Your task to perform on an android device: turn on priority inbox in the gmail app Image 0: 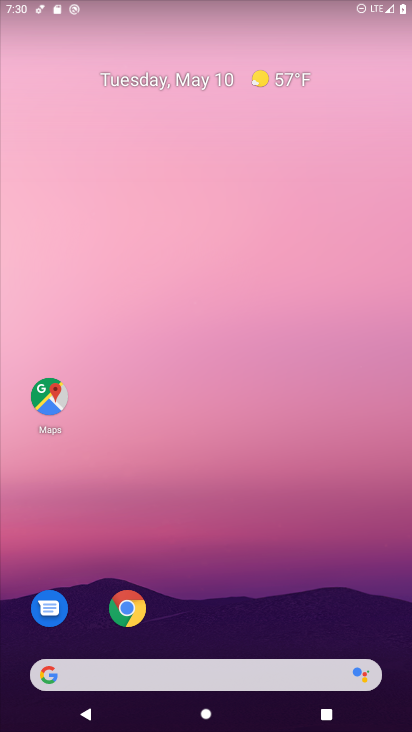
Step 0: drag from (318, 611) to (184, 93)
Your task to perform on an android device: turn on priority inbox in the gmail app Image 1: 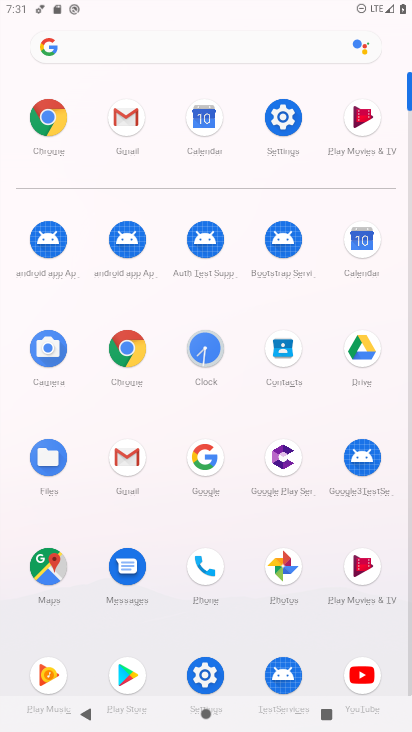
Step 1: click (138, 456)
Your task to perform on an android device: turn on priority inbox in the gmail app Image 2: 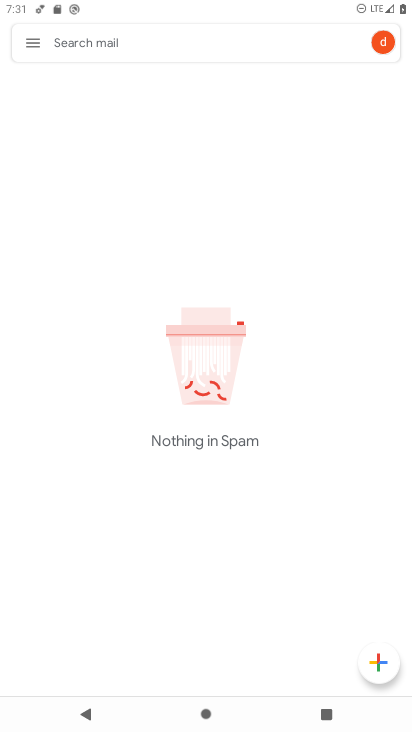
Step 2: click (40, 36)
Your task to perform on an android device: turn on priority inbox in the gmail app Image 3: 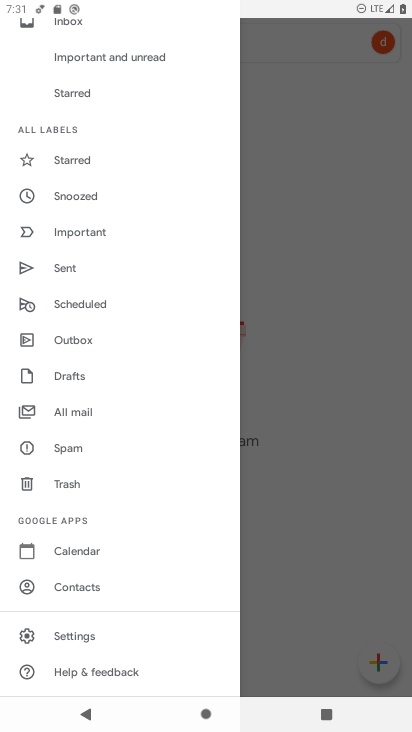
Step 3: click (111, 634)
Your task to perform on an android device: turn on priority inbox in the gmail app Image 4: 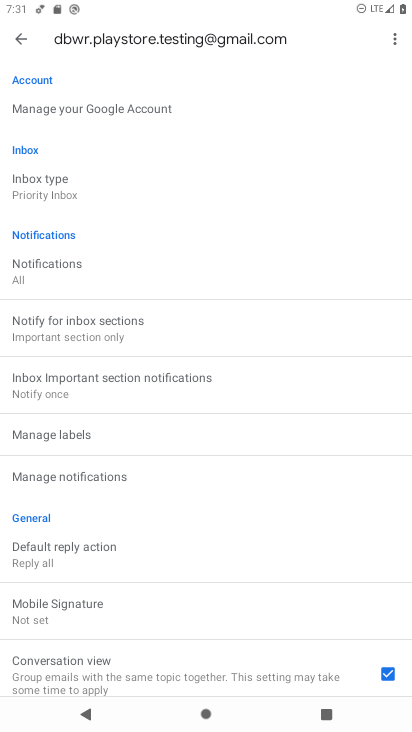
Step 4: click (138, 188)
Your task to perform on an android device: turn on priority inbox in the gmail app Image 5: 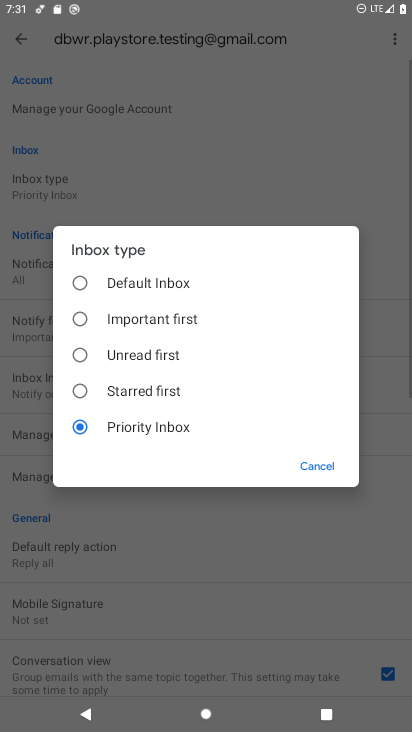
Step 5: click (169, 432)
Your task to perform on an android device: turn on priority inbox in the gmail app Image 6: 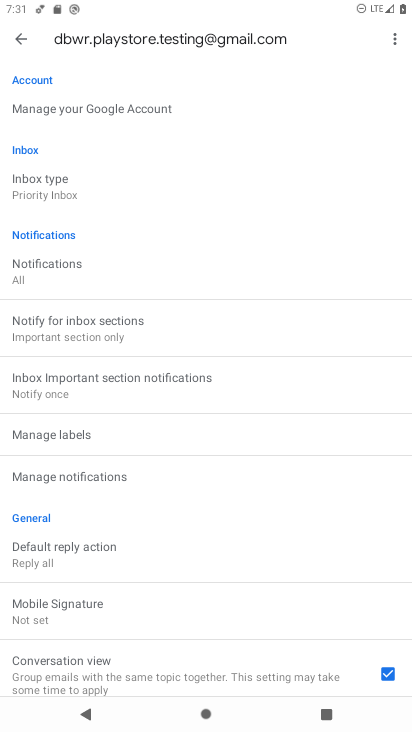
Step 6: task complete